Your task to perform on an android device: Go to Yahoo.com Image 0: 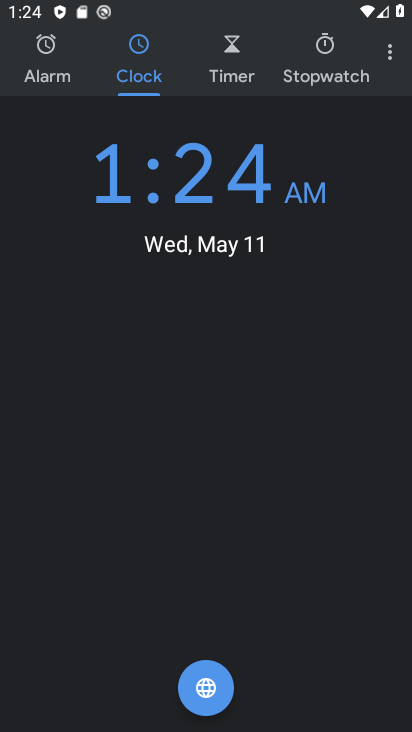
Step 0: press home button
Your task to perform on an android device: Go to Yahoo.com Image 1: 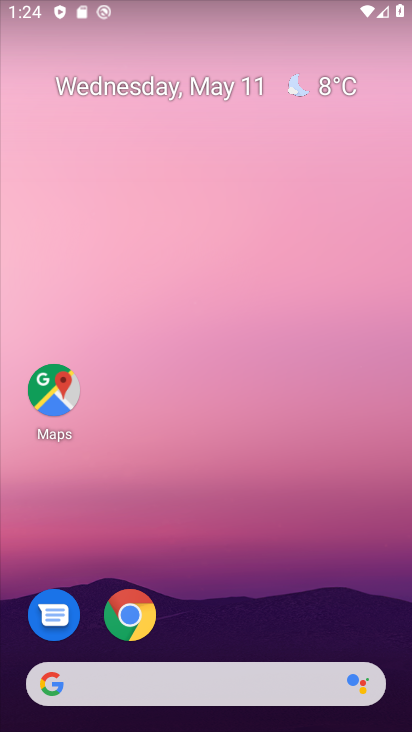
Step 1: drag from (367, 594) to (378, 51)
Your task to perform on an android device: Go to Yahoo.com Image 2: 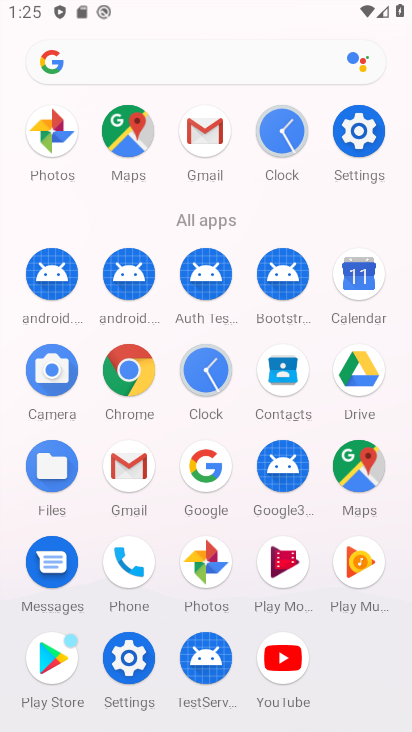
Step 2: click (147, 381)
Your task to perform on an android device: Go to Yahoo.com Image 3: 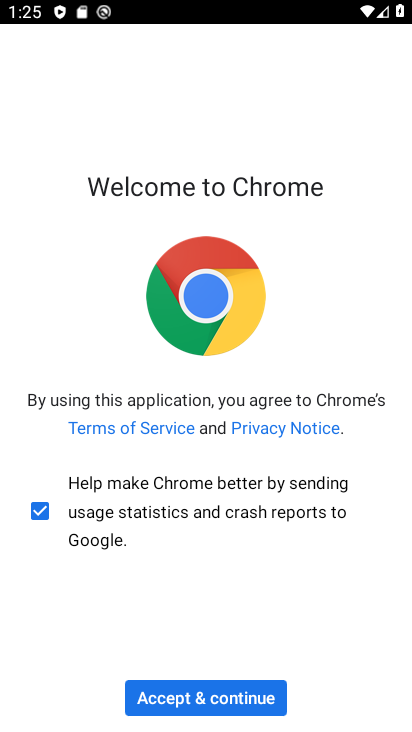
Step 3: click (268, 700)
Your task to perform on an android device: Go to Yahoo.com Image 4: 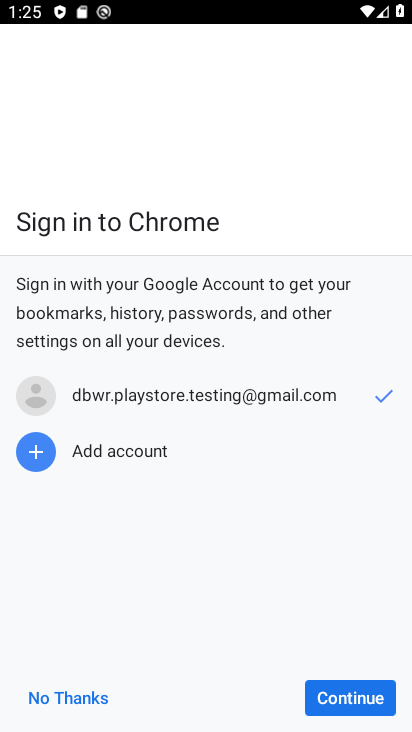
Step 4: click (337, 699)
Your task to perform on an android device: Go to Yahoo.com Image 5: 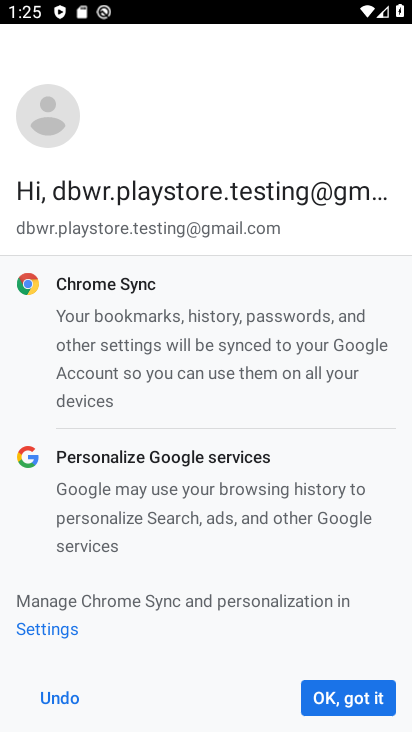
Step 5: click (336, 696)
Your task to perform on an android device: Go to Yahoo.com Image 6: 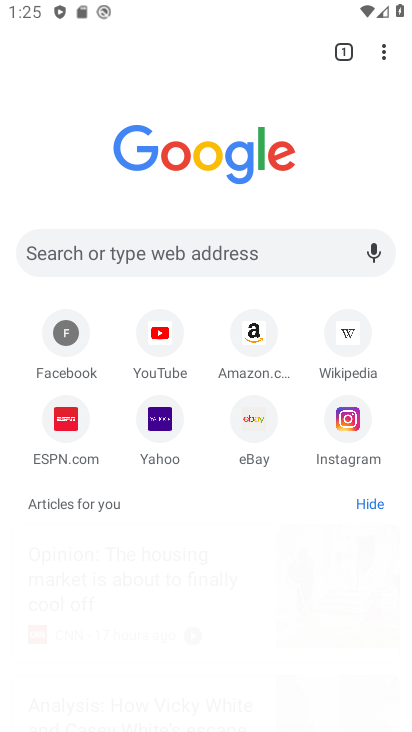
Step 6: click (235, 248)
Your task to perform on an android device: Go to Yahoo.com Image 7: 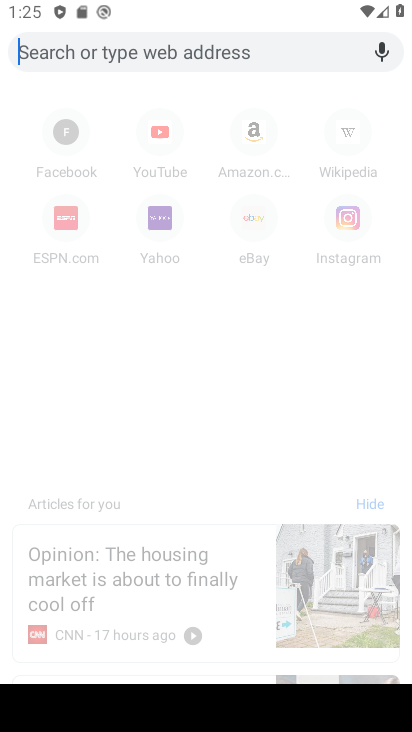
Step 7: click (162, 243)
Your task to perform on an android device: Go to Yahoo.com Image 8: 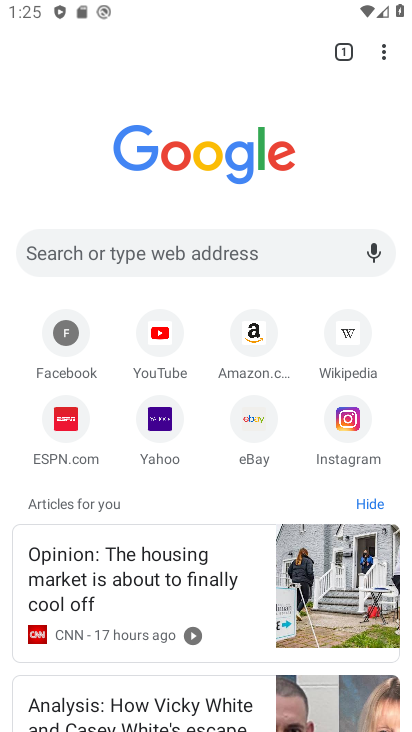
Step 8: click (168, 409)
Your task to perform on an android device: Go to Yahoo.com Image 9: 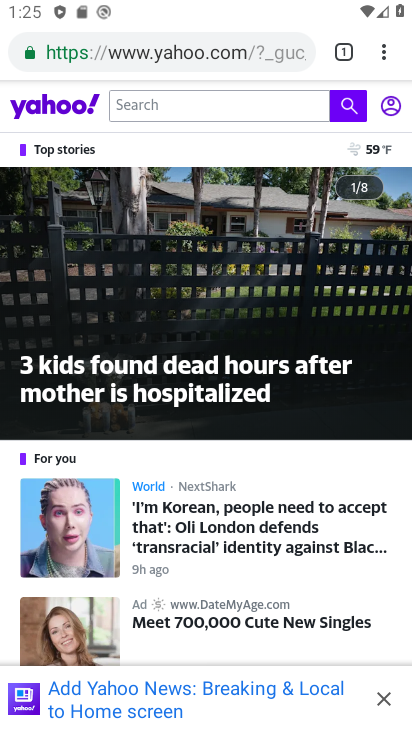
Step 9: task complete